Your task to perform on an android device: Open the stopwatch Image 0: 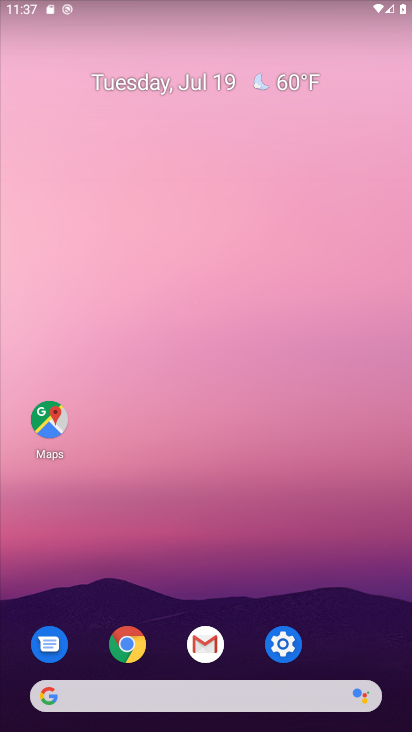
Step 0: press home button
Your task to perform on an android device: Open the stopwatch Image 1: 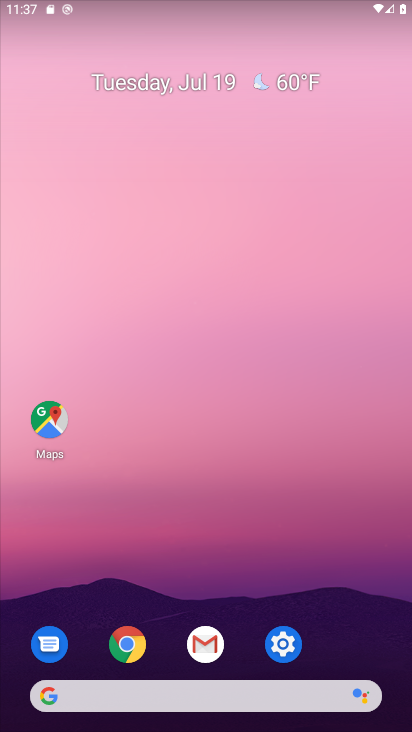
Step 1: drag from (311, 683) to (315, 89)
Your task to perform on an android device: Open the stopwatch Image 2: 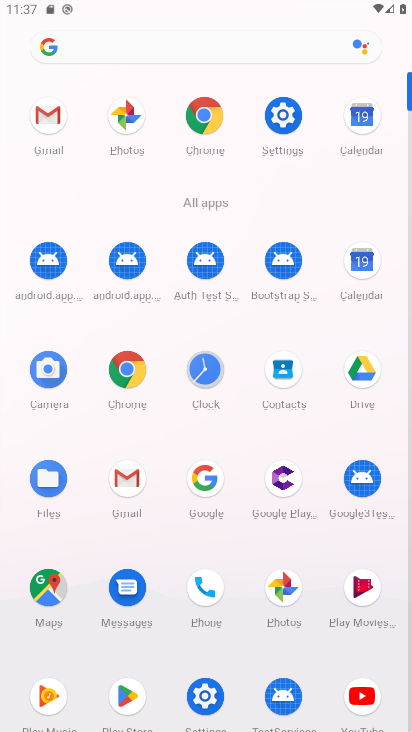
Step 2: click (205, 353)
Your task to perform on an android device: Open the stopwatch Image 3: 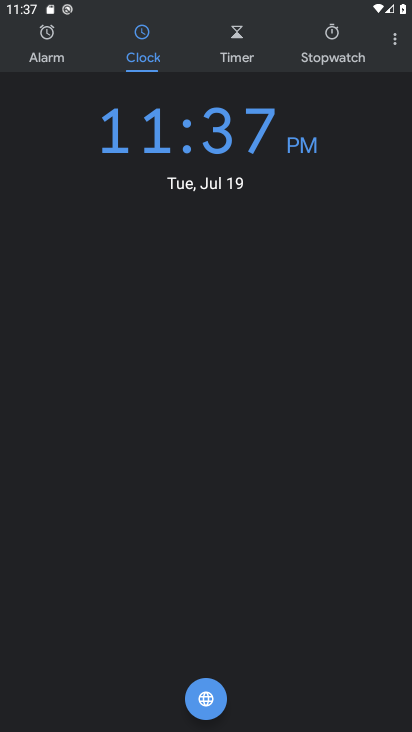
Step 3: click (340, 60)
Your task to perform on an android device: Open the stopwatch Image 4: 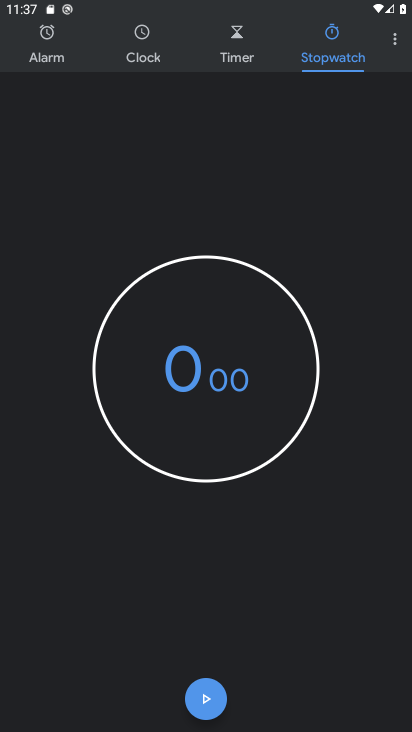
Step 4: click (214, 696)
Your task to perform on an android device: Open the stopwatch Image 5: 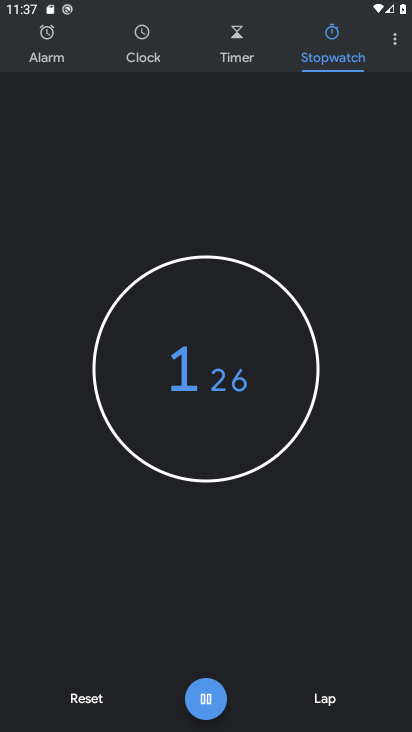
Step 5: click (222, 694)
Your task to perform on an android device: Open the stopwatch Image 6: 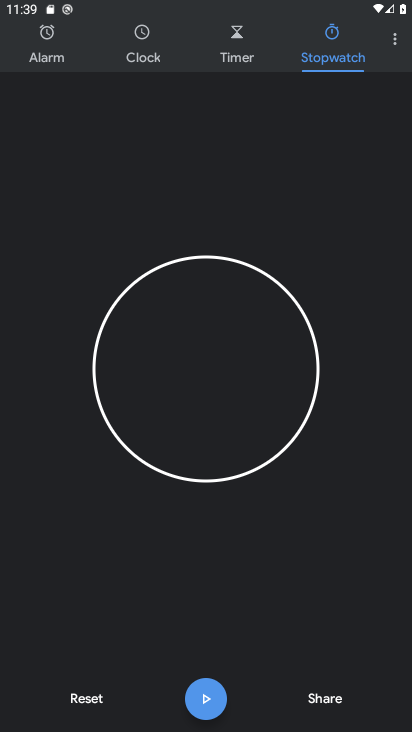
Step 6: task complete